Your task to perform on an android device: open a bookmark in the chrome app Image 0: 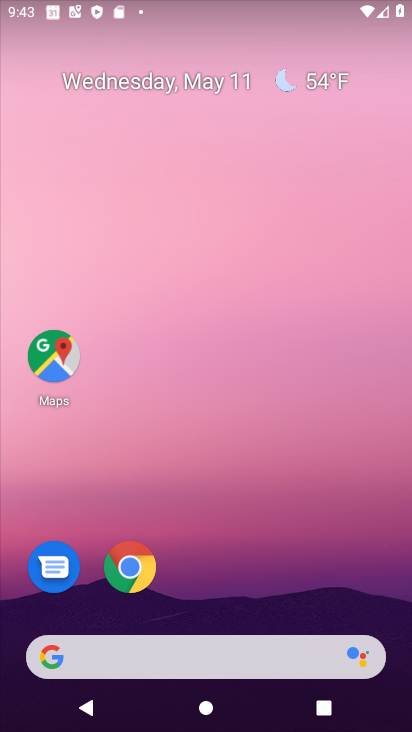
Step 0: click (144, 585)
Your task to perform on an android device: open a bookmark in the chrome app Image 1: 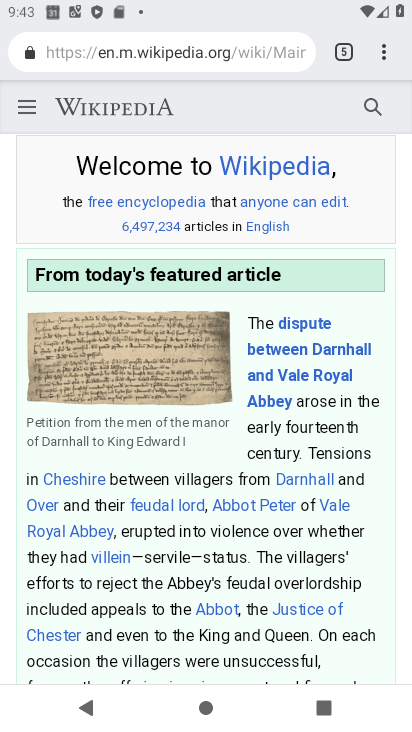
Step 1: click (386, 65)
Your task to perform on an android device: open a bookmark in the chrome app Image 2: 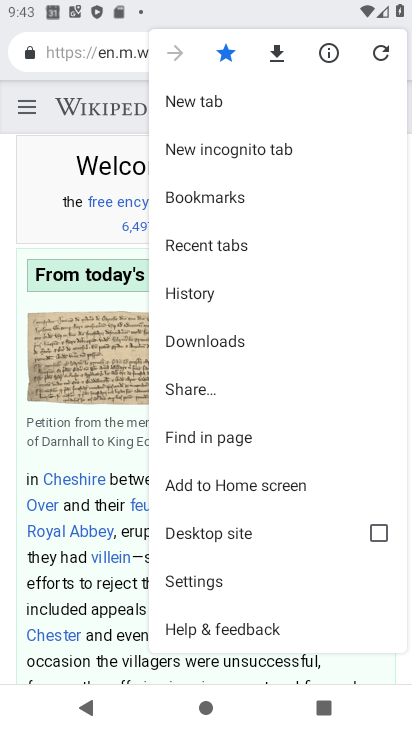
Step 2: click (203, 201)
Your task to perform on an android device: open a bookmark in the chrome app Image 3: 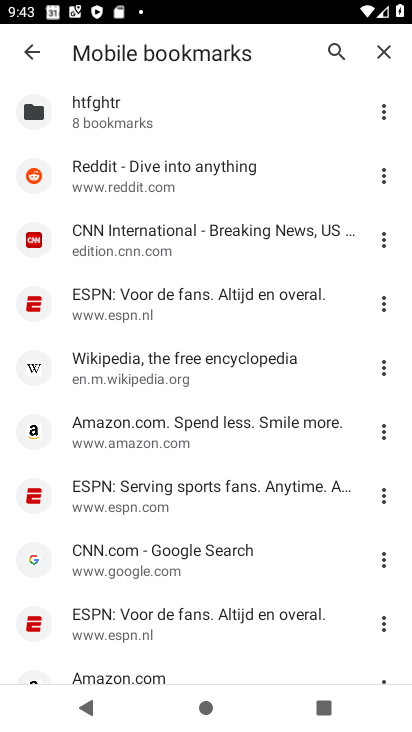
Step 3: click (152, 300)
Your task to perform on an android device: open a bookmark in the chrome app Image 4: 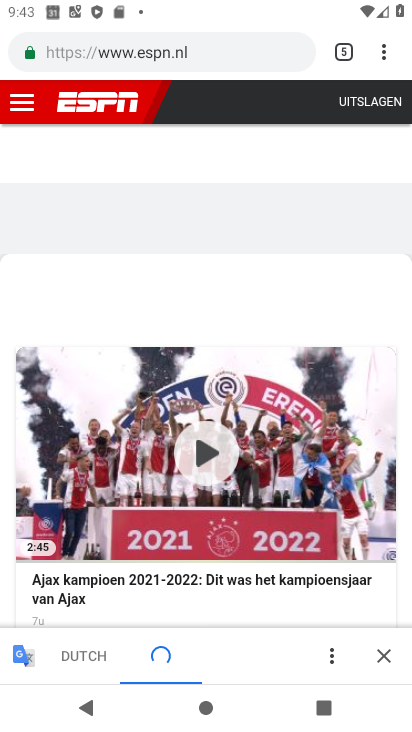
Step 4: task complete